Your task to perform on an android device: refresh tabs in the chrome app Image 0: 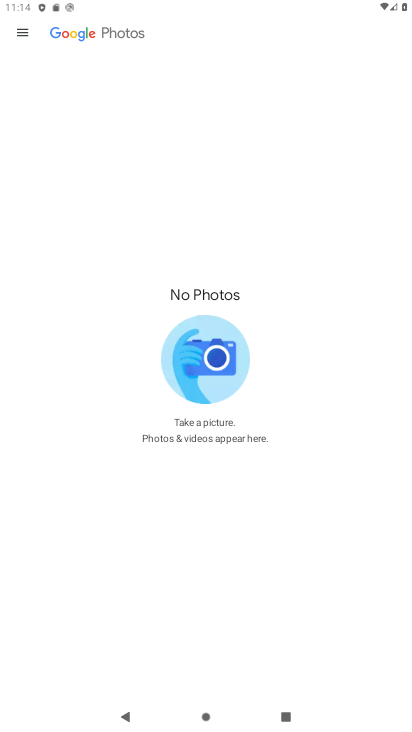
Step 0: press home button
Your task to perform on an android device: refresh tabs in the chrome app Image 1: 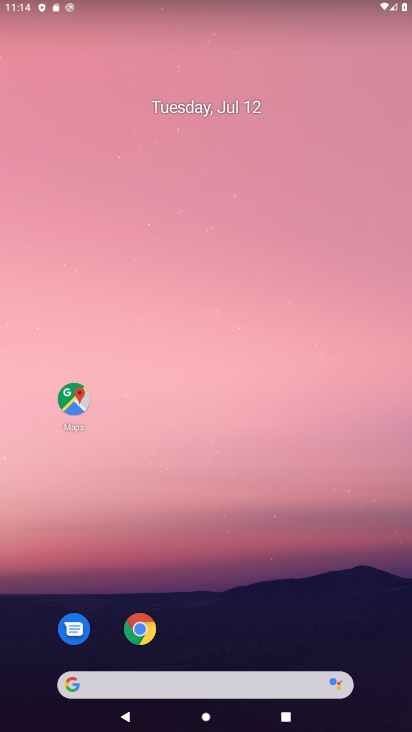
Step 1: click (135, 634)
Your task to perform on an android device: refresh tabs in the chrome app Image 2: 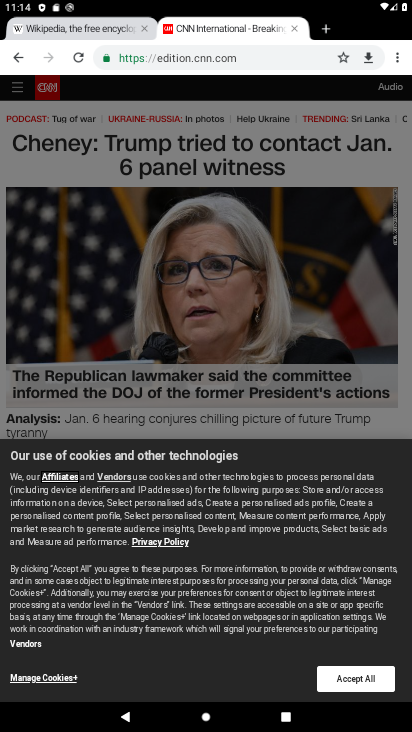
Step 2: click (81, 52)
Your task to perform on an android device: refresh tabs in the chrome app Image 3: 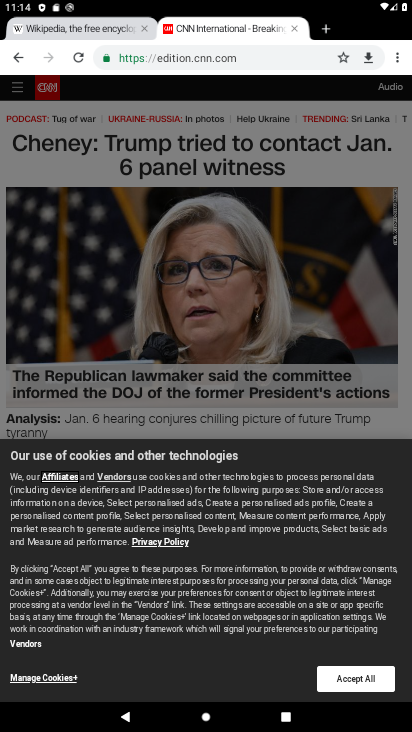
Step 3: task complete